Your task to perform on an android device: Do I have any events this weekend? Image 0: 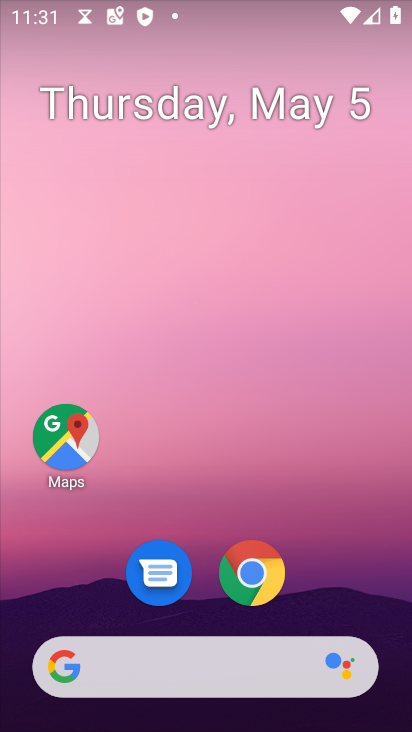
Step 0: drag from (326, 596) to (305, 325)
Your task to perform on an android device: Do I have any events this weekend? Image 1: 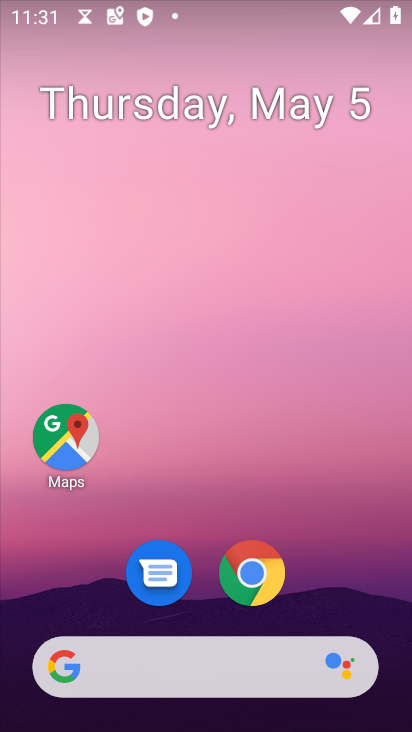
Step 1: drag from (343, 597) to (294, 223)
Your task to perform on an android device: Do I have any events this weekend? Image 2: 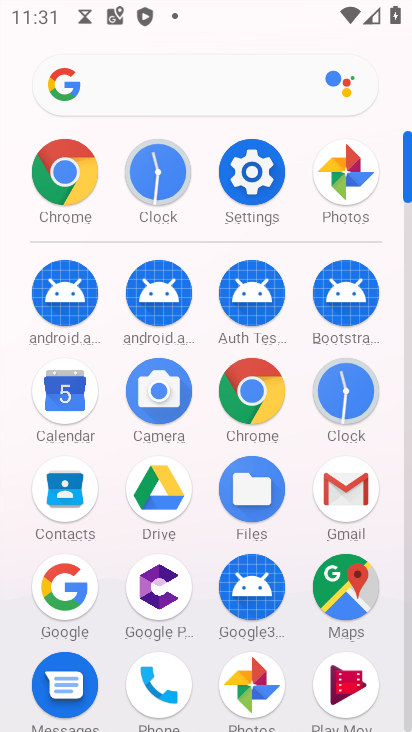
Step 2: click (75, 397)
Your task to perform on an android device: Do I have any events this weekend? Image 3: 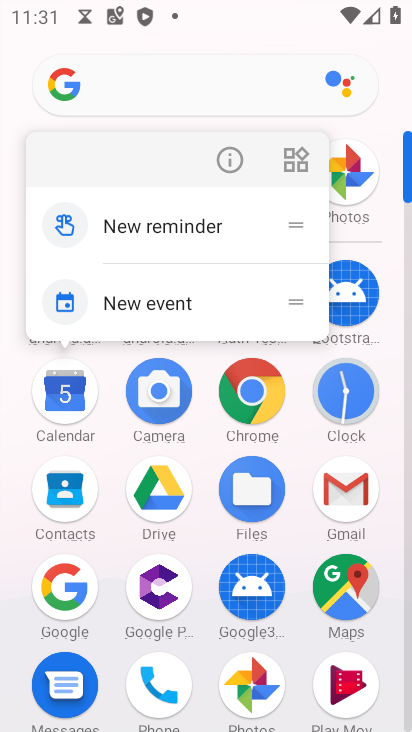
Step 3: click (62, 384)
Your task to perform on an android device: Do I have any events this weekend? Image 4: 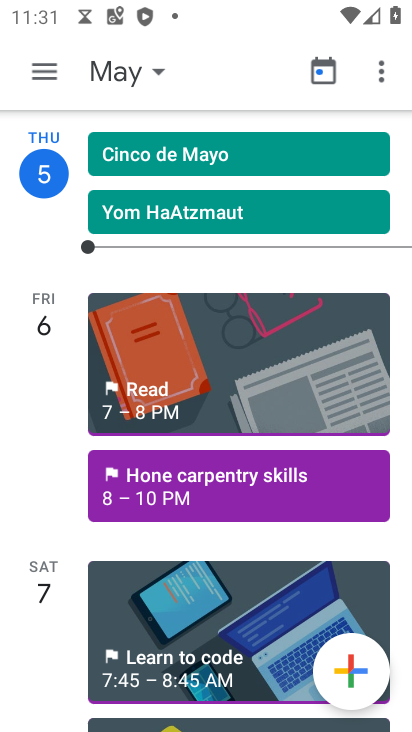
Step 4: click (49, 76)
Your task to perform on an android device: Do I have any events this weekend? Image 5: 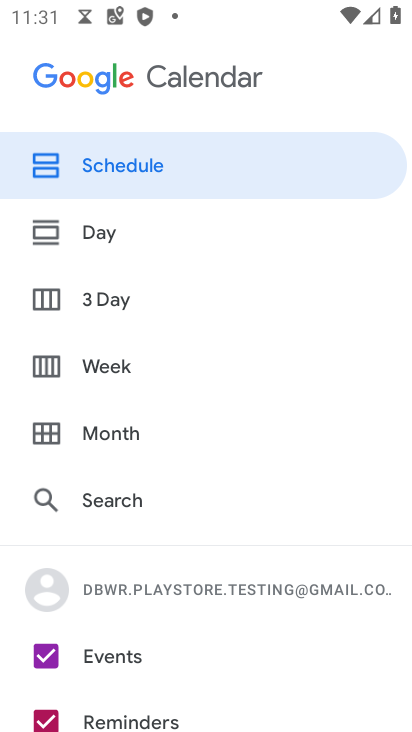
Step 5: click (117, 431)
Your task to perform on an android device: Do I have any events this weekend? Image 6: 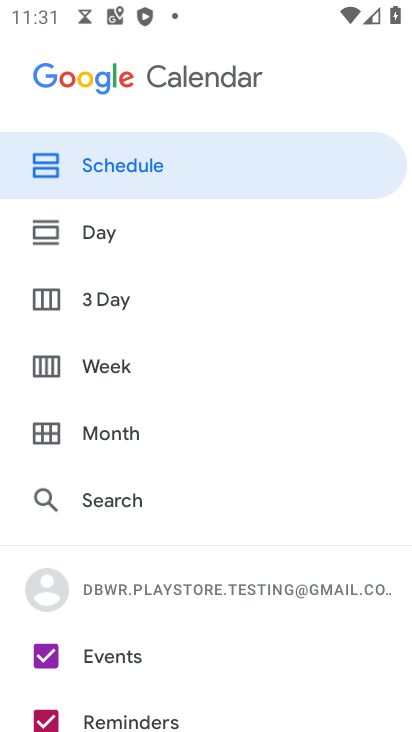
Step 6: click (116, 432)
Your task to perform on an android device: Do I have any events this weekend? Image 7: 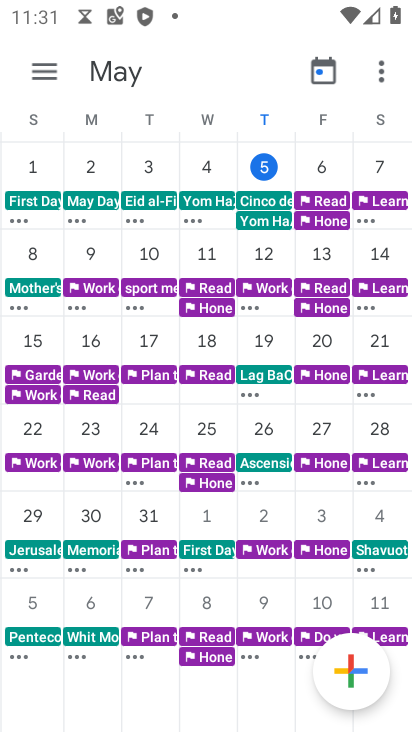
Step 7: click (156, 182)
Your task to perform on an android device: Do I have any events this weekend? Image 8: 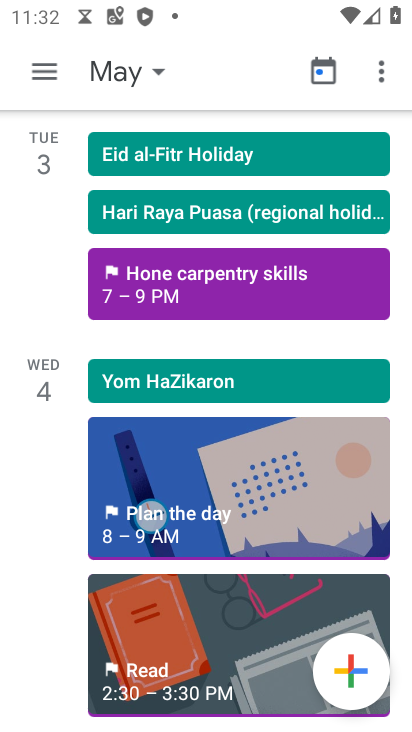
Step 8: task complete